Your task to perform on an android device: turn off priority inbox in the gmail app Image 0: 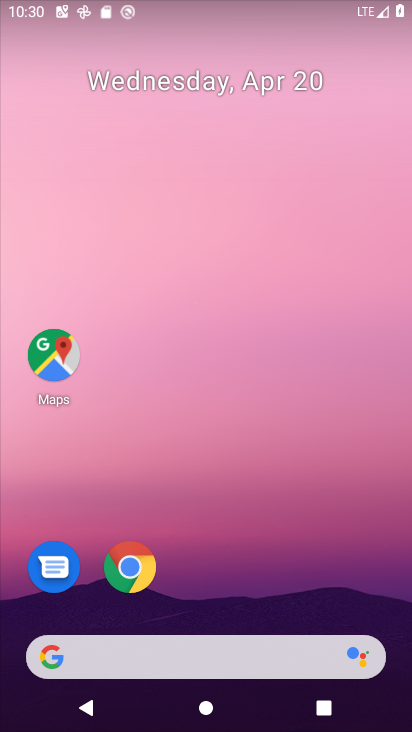
Step 0: drag from (329, 572) to (313, 112)
Your task to perform on an android device: turn off priority inbox in the gmail app Image 1: 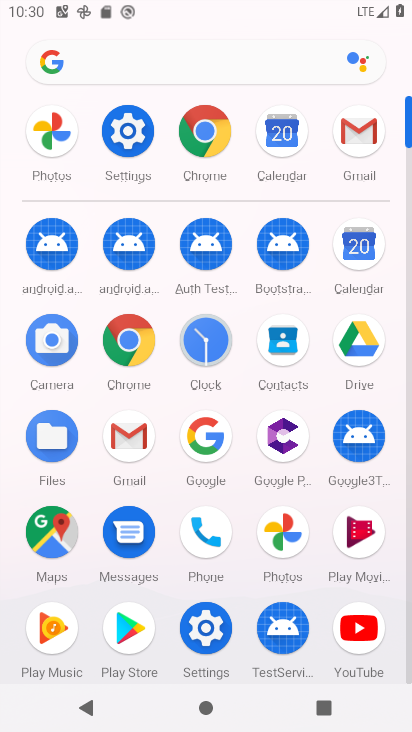
Step 1: click (128, 437)
Your task to perform on an android device: turn off priority inbox in the gmail app Image 2: 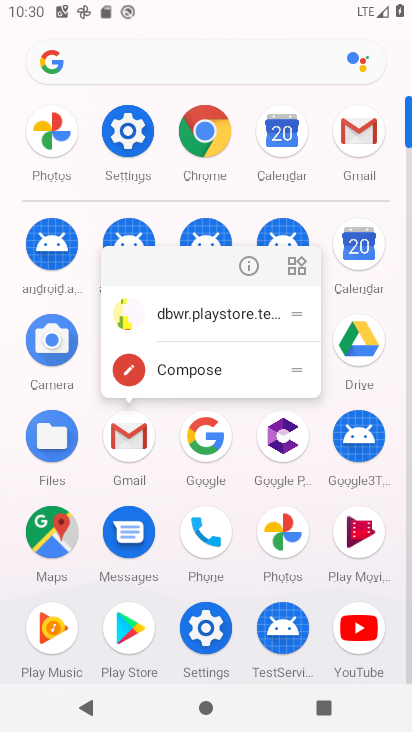
Step 2: click (127, 435)
Your task to perform on an android device: turn off priority inbox in the gmail app Image 3: 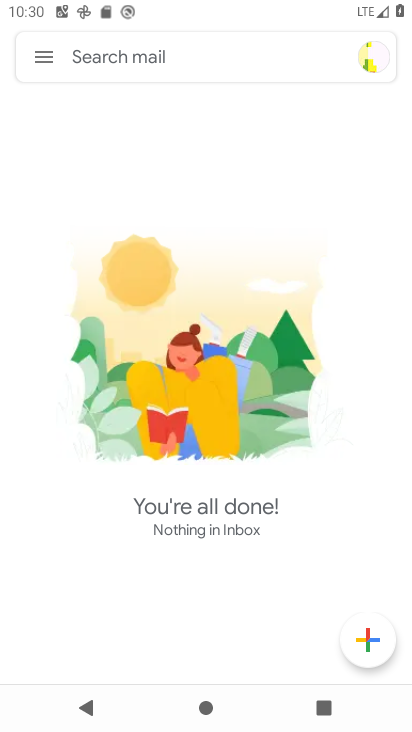
Step 3: click (45, 59)
Your task to perform on an android device: turn off priority inbox in the gmail app Image 4: 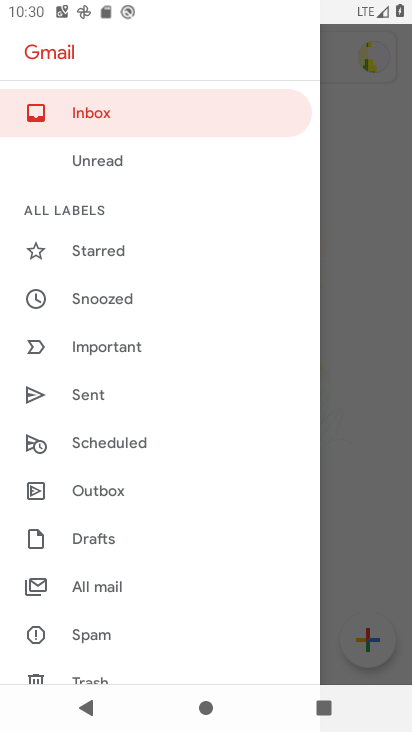
Step 4: drag from (233, 577) to (238, 401)
Your task to perform on an android device: turn off priority inbox in the gmail app Image 5: 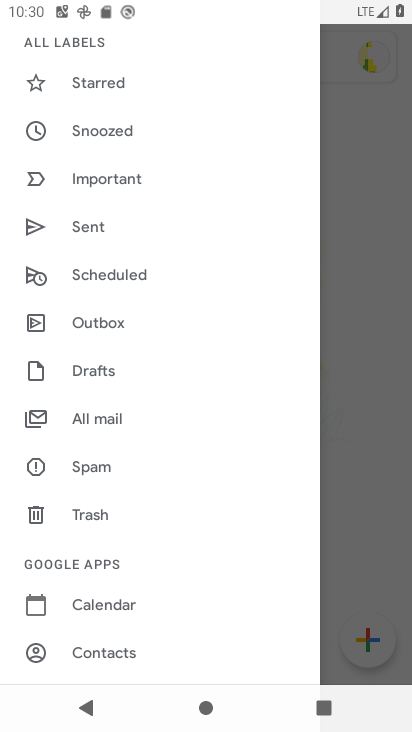
Step 5: drag from (236, 606) to (252, 419)
Your task to perform on an android device: turn off priority inbox in the gmail app Image 6: 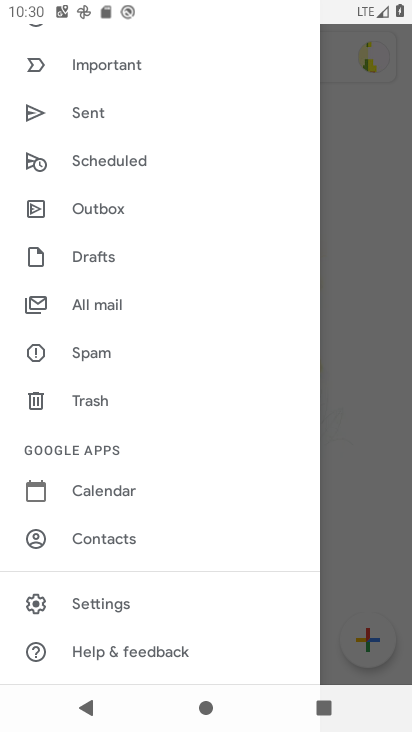
Step 6: drag from (253, 601) to (243, 476)
Your task to perform on an android device: turn off priority inbox in the gmail app Image 7: 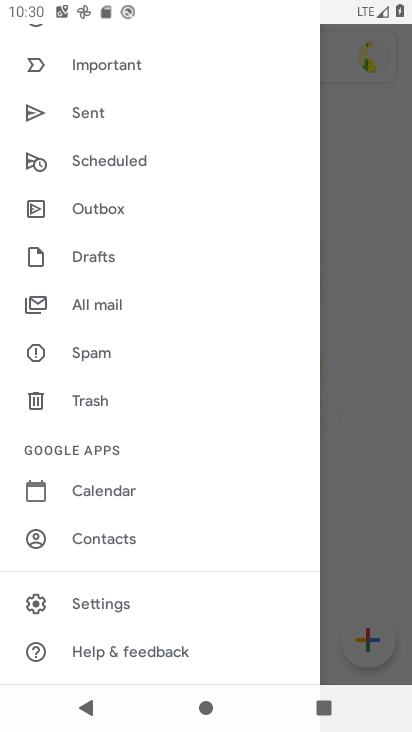
Step 7: click (112, 612)
Your task to perform on an android device: turn off priority inbox in the gmail app Image 8: 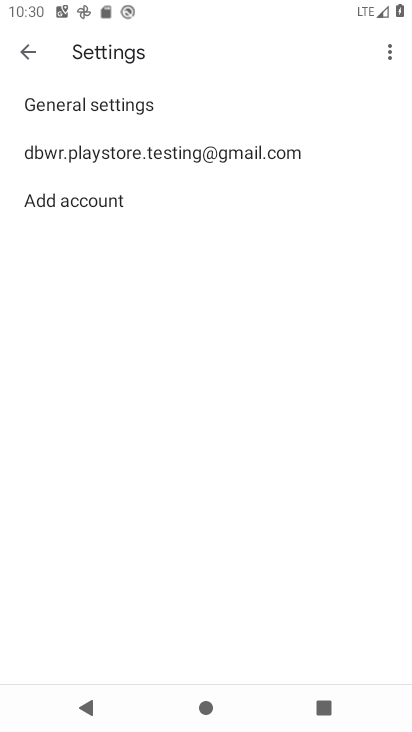
Step 8: click (211, 151)
Your task to perform on an android device: turn off priority inbox in the gmail app Image 9: 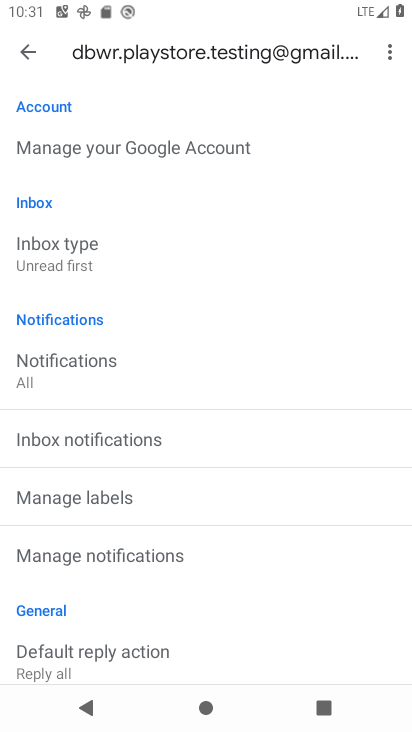
Step 9: drag from (297, 571) to (307, 406)
Your task to perform on an android device: turn off priority inbox in the gmail app Image 10: 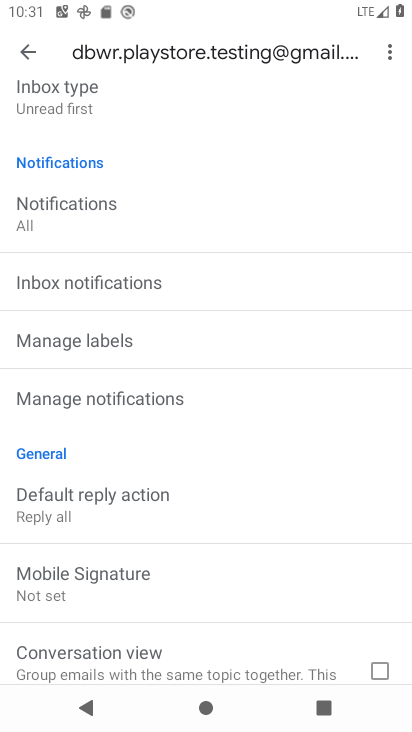
Step 10: drag from (301, 585) to (312, 398)
Your task to perform on an android device: turn off priority inbox in the gmail app Image 11: 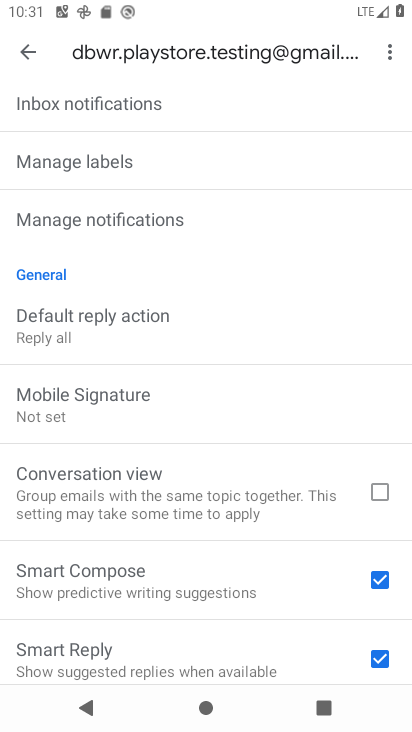
Step 11: drag from (297, 610) to (313, 426)
Your task to perform on an android device: turn off priority inbox in the gmail app Image 12: 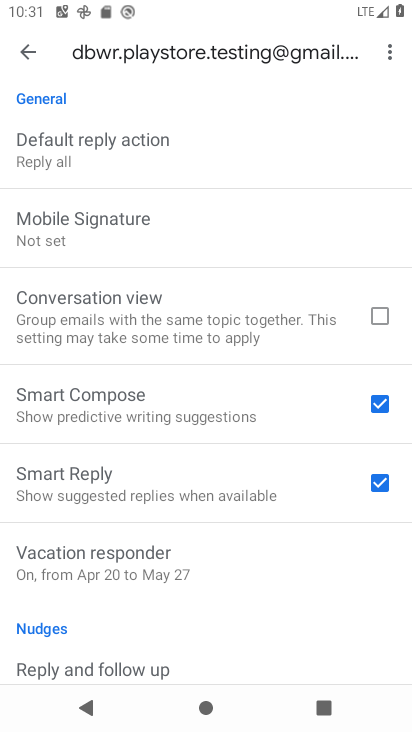
Step 12: drag from (292, 619) to (300, 447)
Your task to perform on an android device: turn off priority inbox in the gmail app Image 13: 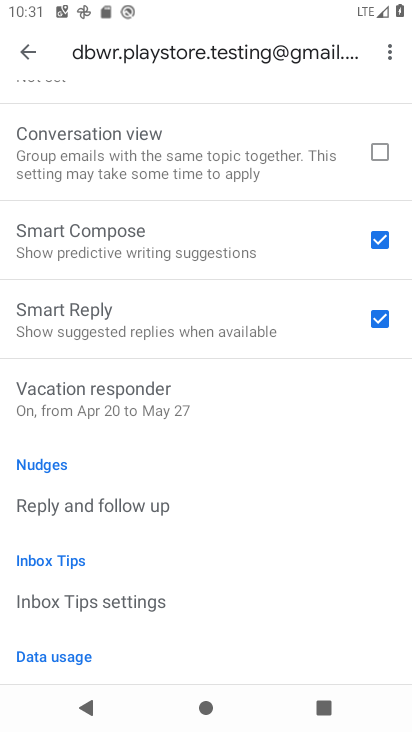
Step 13: drag from (276, 635) to (287, 428)
Your task to perform on an android device: turn off priority inbox in the gmail app Image 14: 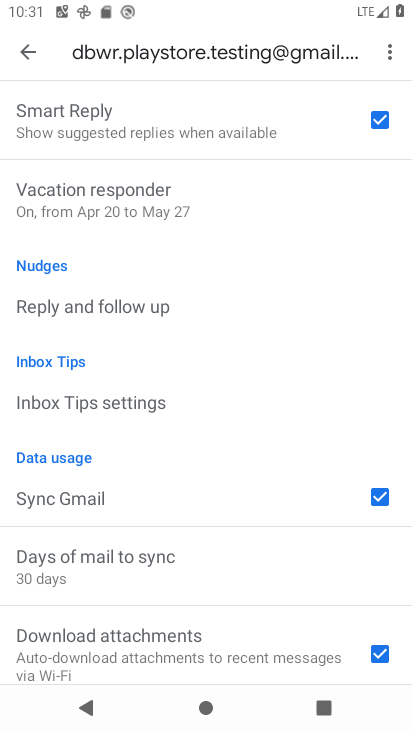
Step 14: drag from (306, 276) to (304, 472)
Your task to perform on an android device: turn off priority inbox in the gmail app Image 15: 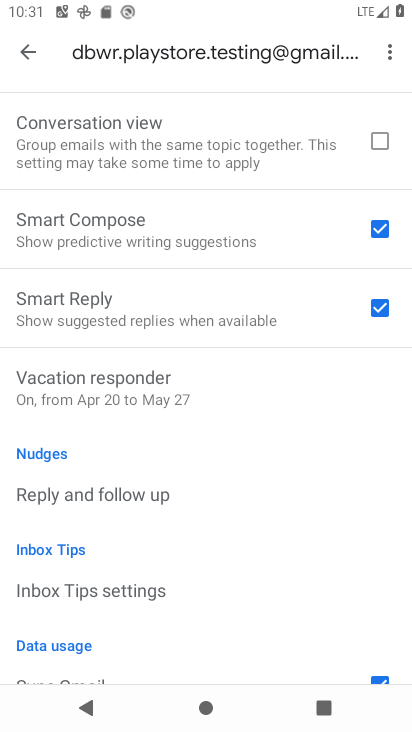
Step 15: drag from (296, 249) to (291, 476)
Your task to perform on an android device: turn off priority inbox in the gmail app Image 16: 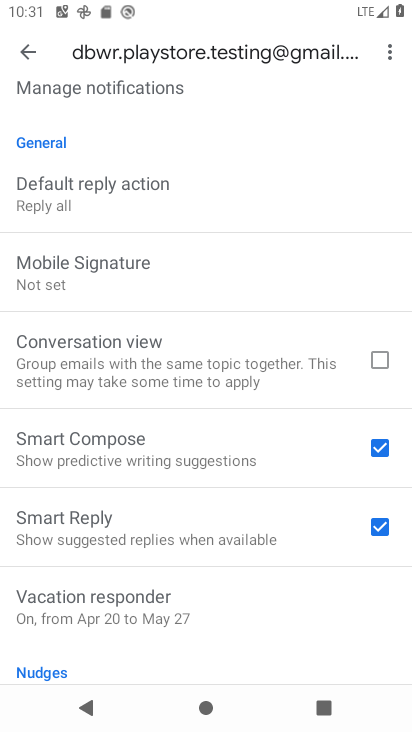
Step 16: drag from (279, 254) to (268, 440)
Your task to perform on an android device: turn off priority inbox in the gmail app Image 17: 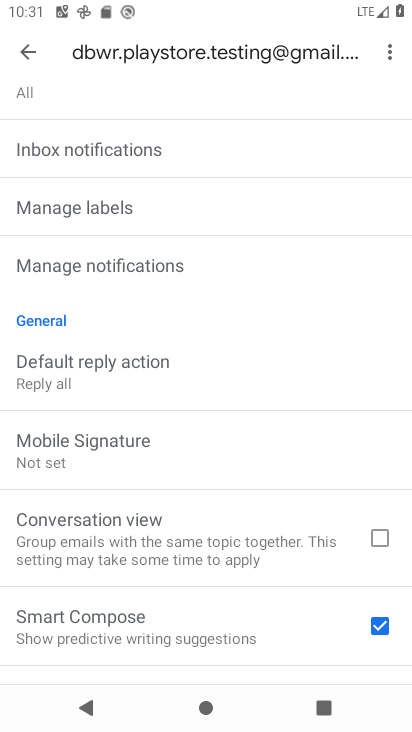
Step 17: drag from (281, 256) to (307, 408)
Your task to perform on an android device: turn off priority inbox in the gmail app Image 18: 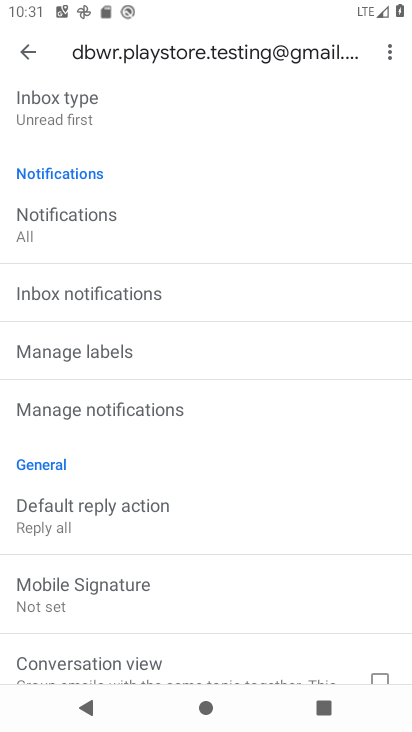
Step 18: drag from (306, 274) to (302, 570)
Your task to perform on an android device: turn off priority inbox in the gmail app Image 19: 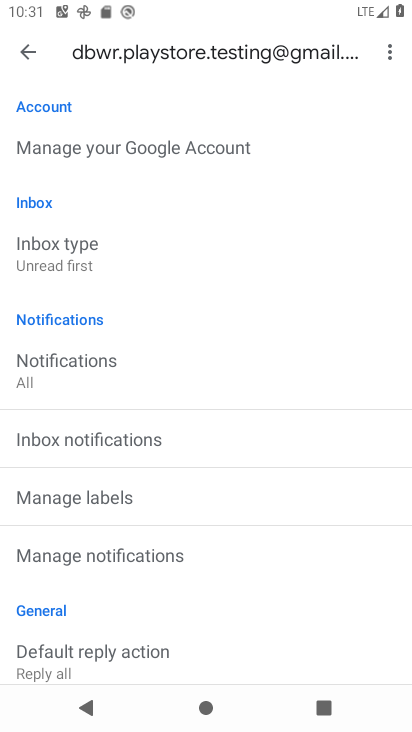
Step 19: click (66, 255)
Your task to perform on an android device: turn off priority inbox in the gmail app Image 20: 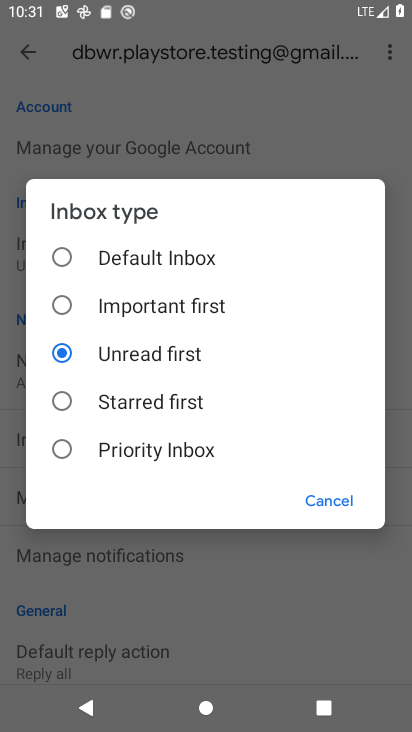
Step 20: task complete